Your task to perform on an android device: toggle show notifications on the lock screen Image 0: 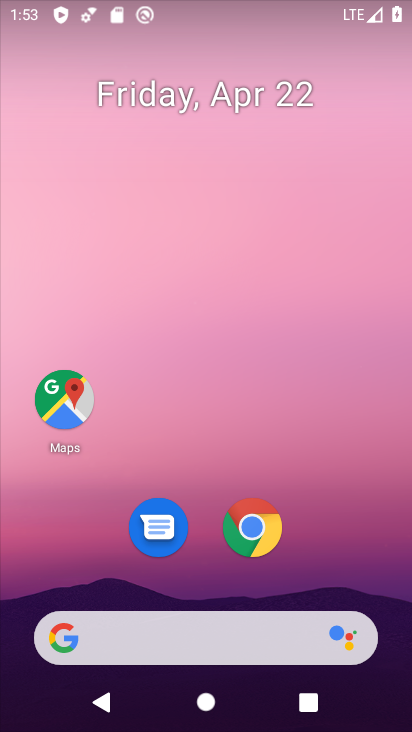
Step 0: drag from (329, 500) to (271, 84)
Your task to perform on an android device: toggle show notifications on the lock screen Image 1: 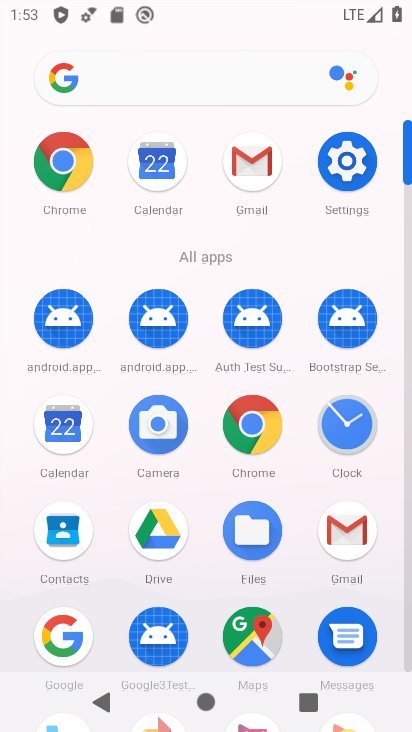
Step 1: click (348, 140)
Your task to perform on an android device: toggle show notifications on the lock screen Image 2: 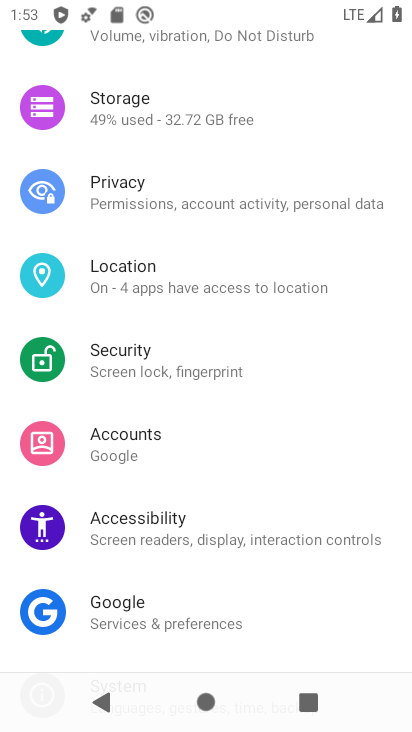
Step 2: drag from (240, 155) to (208, 602)
Your task to perform on an android device: toggle show notifications on the lock screen Image 3: 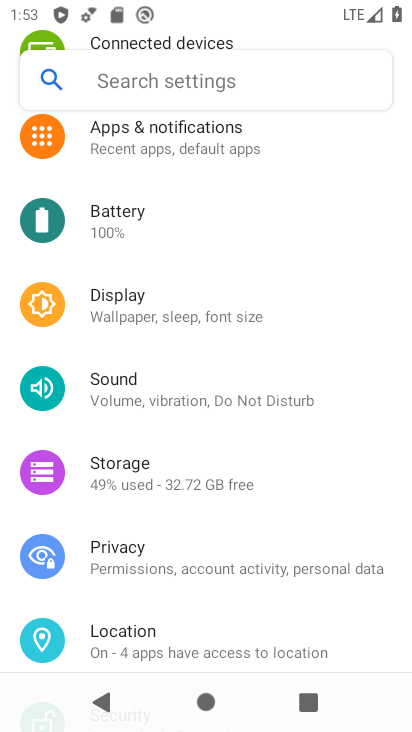
Step 3: click (183, 149)
Your task to perform on an android device: toggle show notifications on the lock screen Image 4: 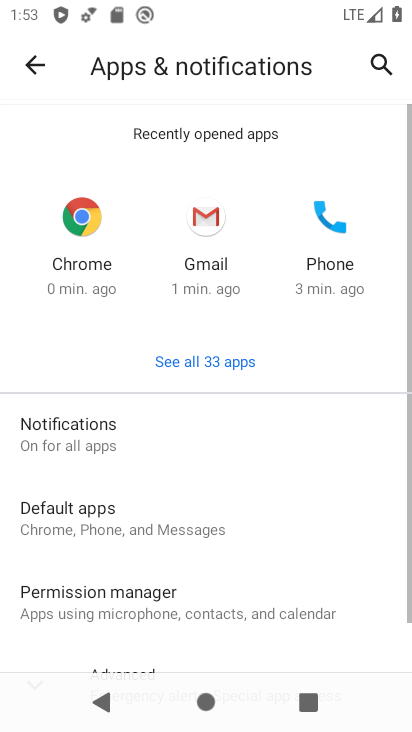
Step 4: click (115, 441)
Your task to perform on an android device: toggle show notifications on the lock screen Image 5: 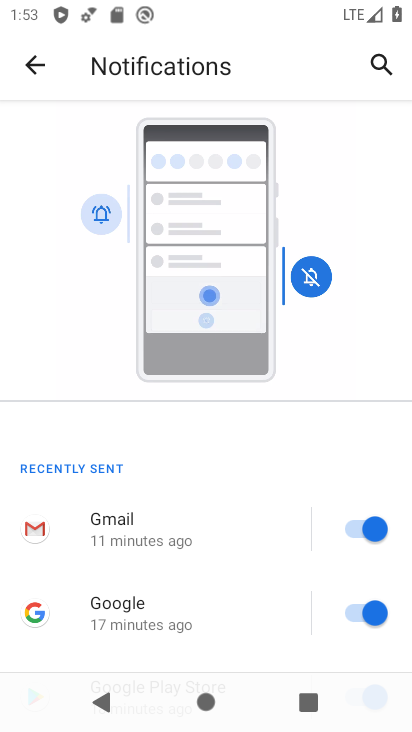
Step 5: drag from (199, 563) to (171, 194)
Your task to perform on an android device: toggle show notifications on the lock screen Image 6: 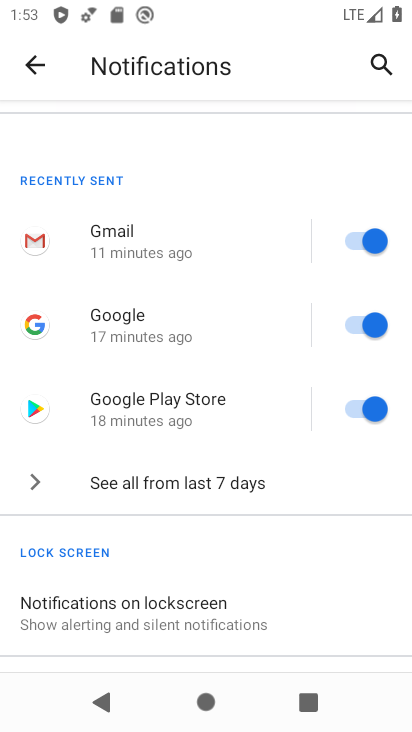
Step 6: click (136, 605)
Your task to perform on an android device: toggle show notifications on the lock screen Image 7: 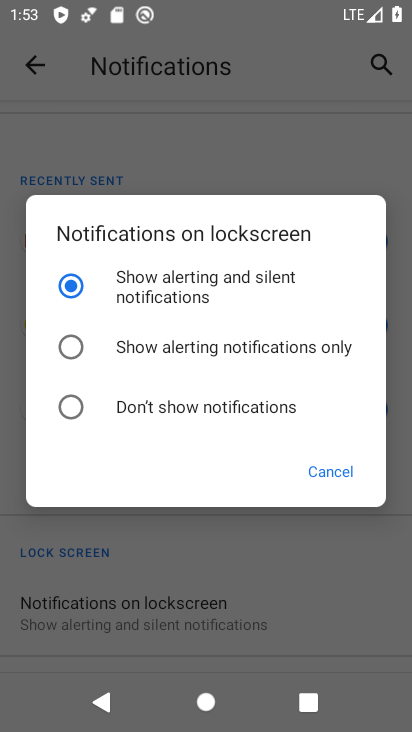
Step 7: task complete